Your task to perform on an android device: open chrome and create a bookmark for the current page Image 0: 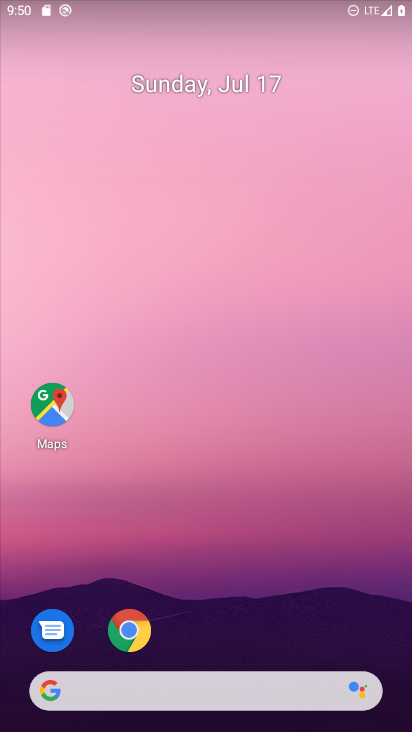
Step 0: drag from (354, 639) to (192, 60)
Your task to perform on an android device: open chrome and create a bookmark for the current page Image 1: 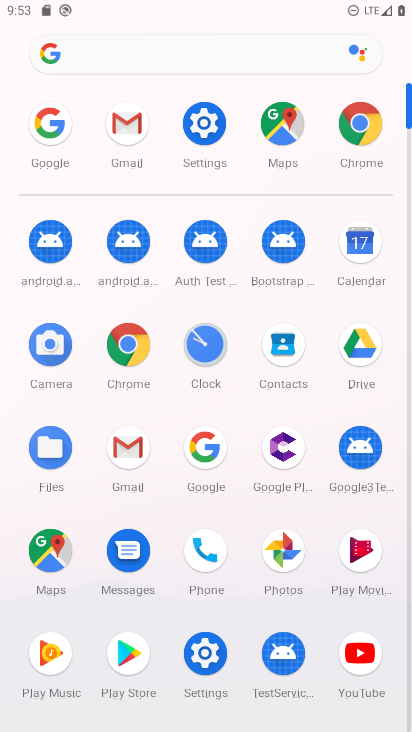
Step 1: click (131, 348)
Your task to perform on an android device: open chrome and create a bookmark for the current page Image 2: 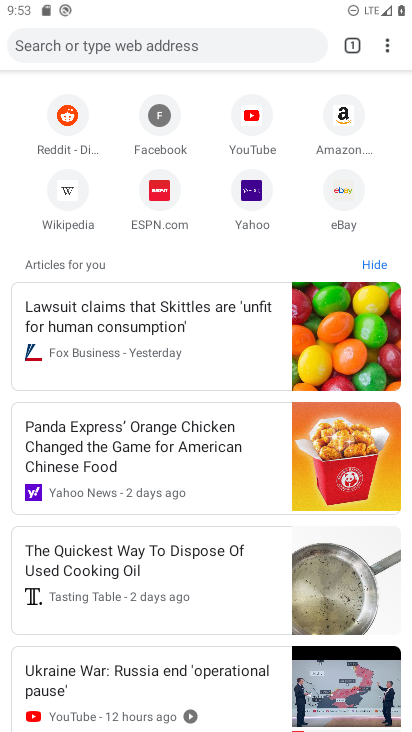
Step 2: click (388, 45)
Your task to perform on an android device: open chrome and create a bookmark for the current page Image 3: 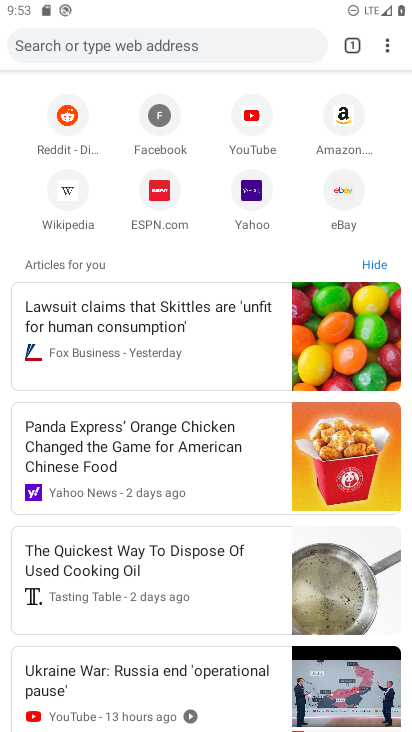
Step 3: click (383, 42)
Your task to perform on an android device: open chrome and create a bookmark for the current page Image 4: 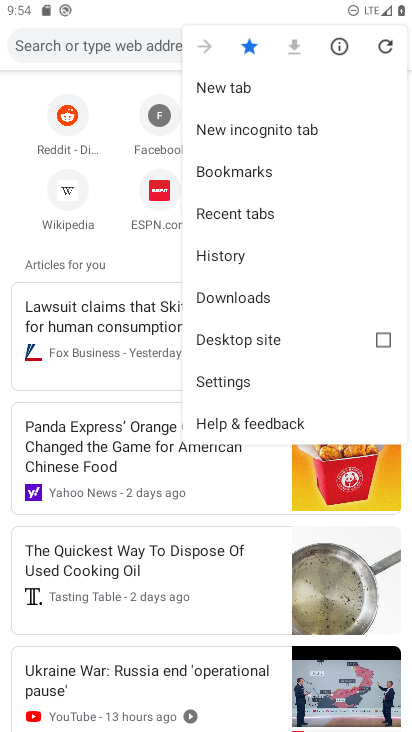
Step 4: task complete